Your task to perform on an android device: open app "Upside-Cash back on gas & food" (install if not already installed) Image 0: 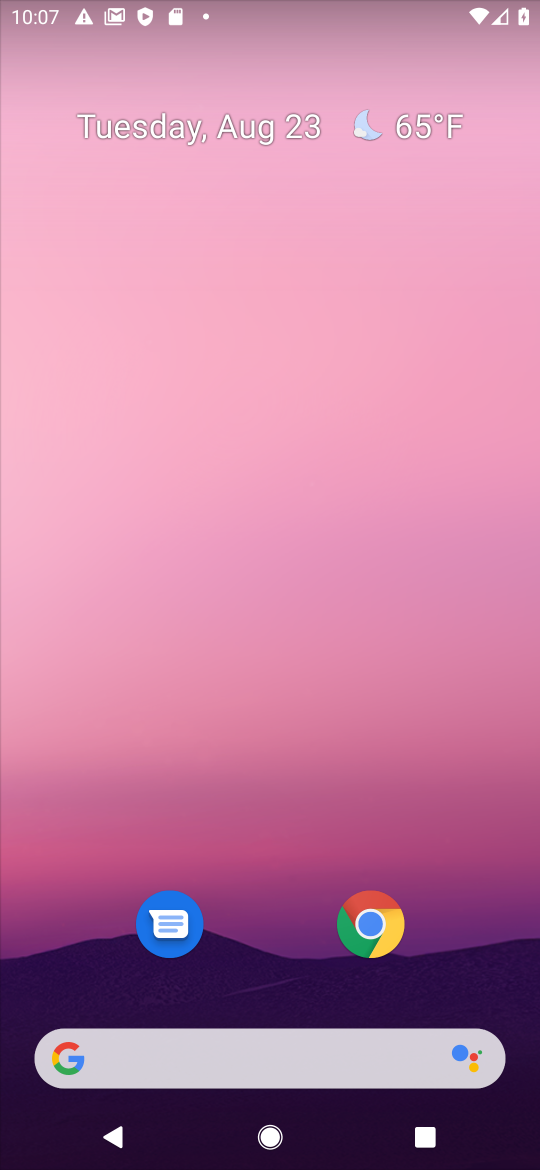
Step 0: drag from (250, 1038) to (210, 115)
Your task to perform on an android device: open app "Upside-Cash back on gas & food" (install if not already installed) Image 1: 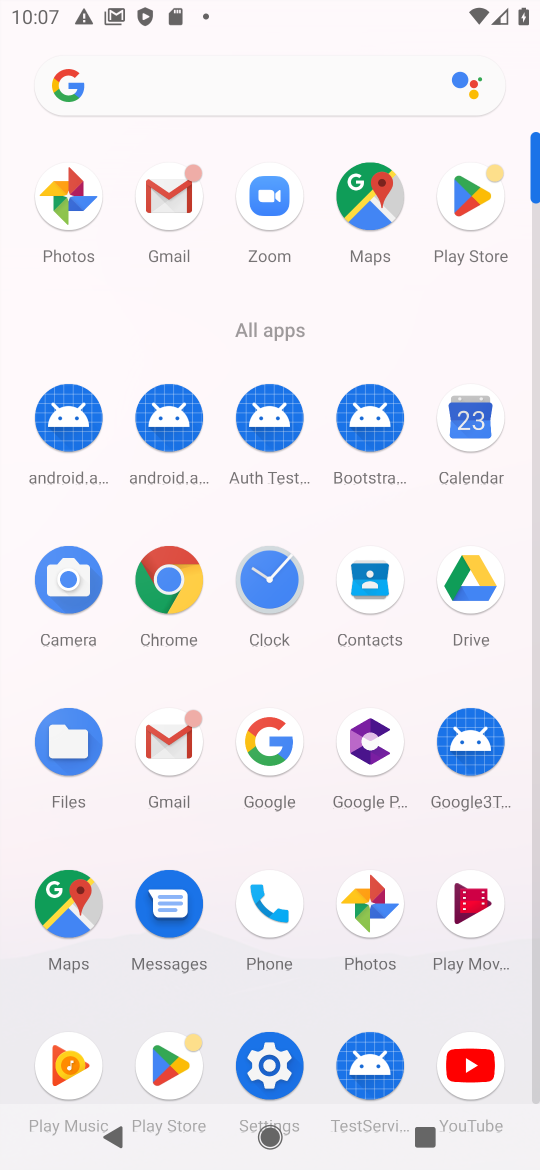
Step 1: click (484, 206)
Your task to perform on an android device: open app "Upside-Cash back on gas & food" (install if not already installed) Image 2: 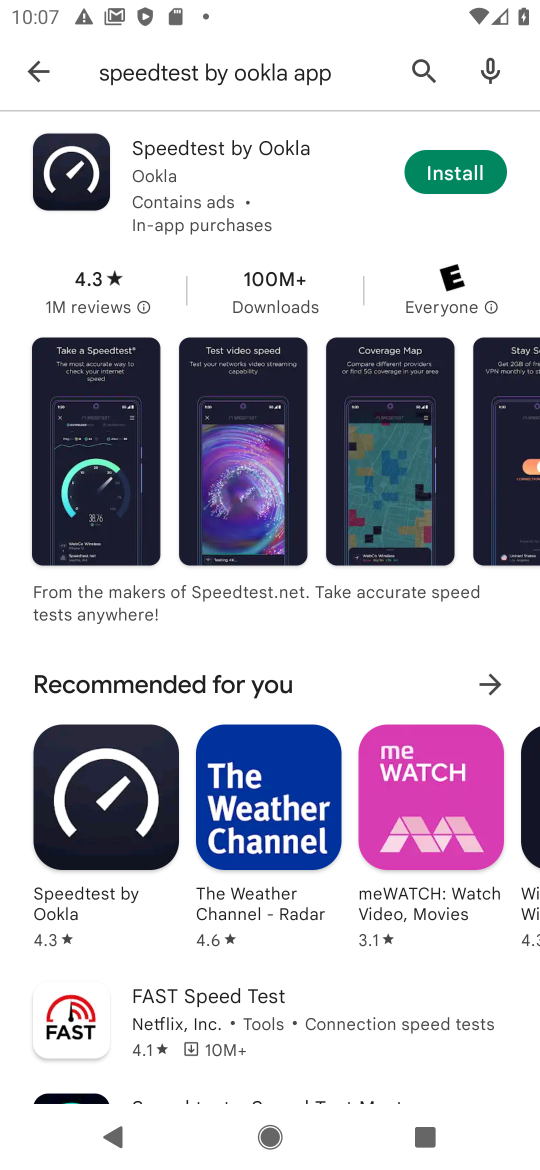
Step 2: click (417, 76)
Your task to perform on an android device: open app "Upside-Cash back on gas & food" (install if not already installed) Image 3: 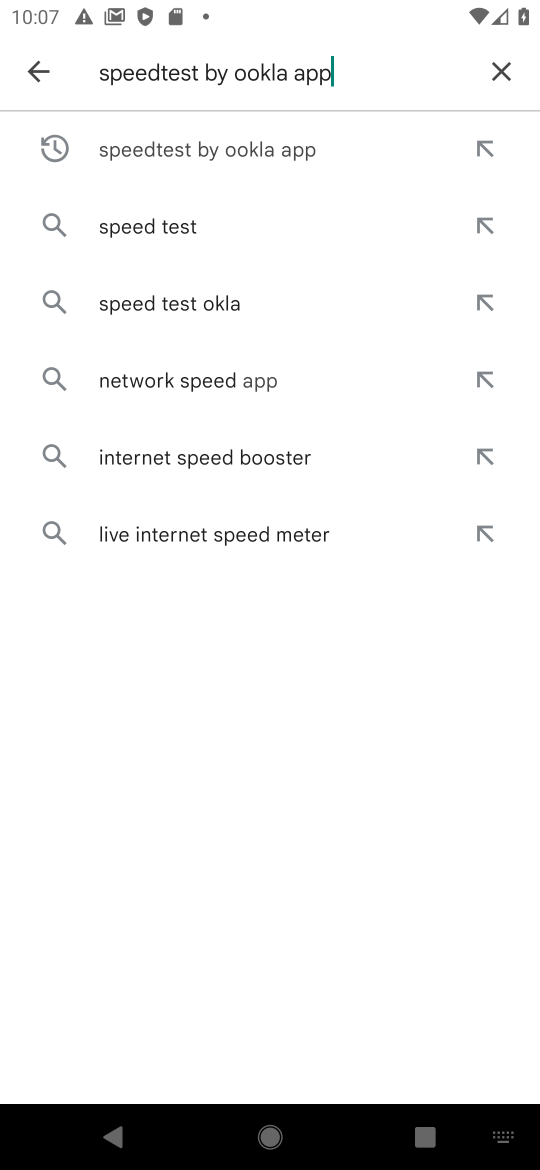
Step 3: click (499, 65)
Your task to perform on an android device: open app "Upside-Cash back on gas & food" (install if not already installed) Image 4: 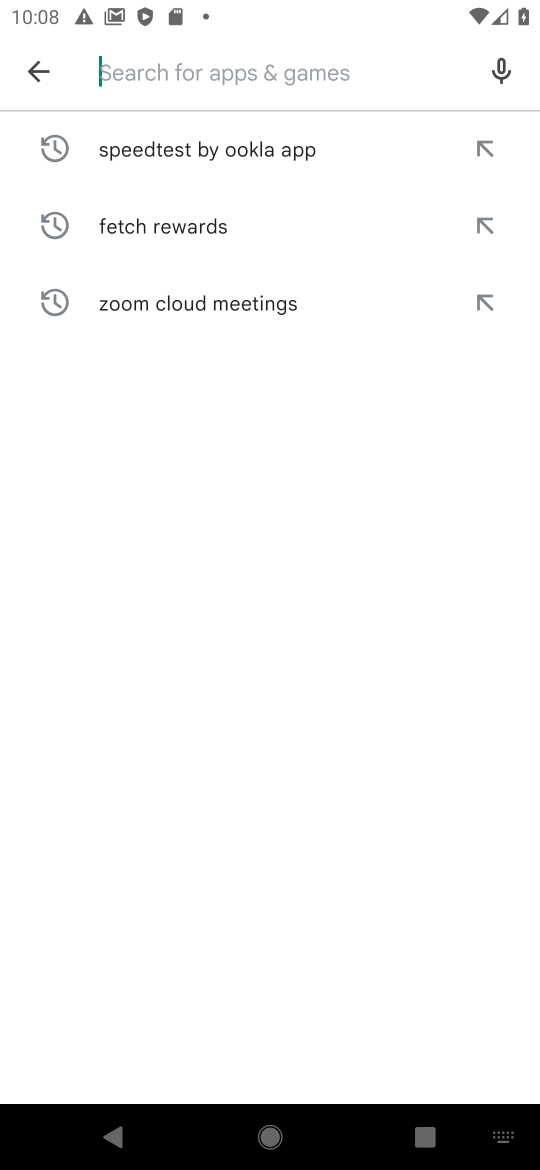
Step 4: type "Upside-Cash back on gas & food"
Your task to perform on an android device: open app "Upside-Cash back on gas & food" (install if not already installed) Image 5: 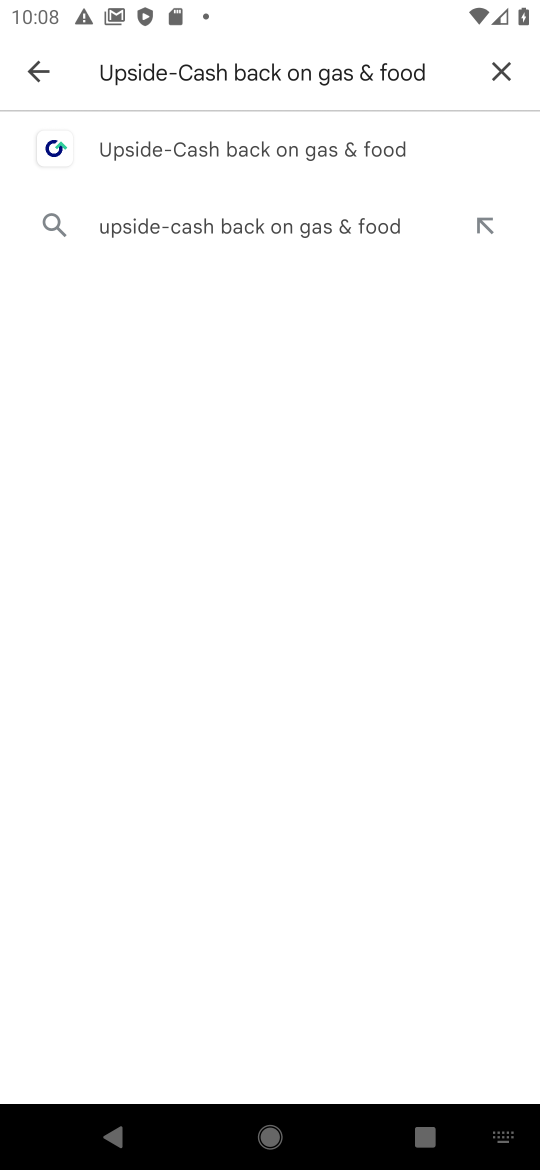
Step 5: click (267, 155)
Your task to perform on an android device: open app "Upside-Cash back on gas & food" (install if not already installed) Image 6: 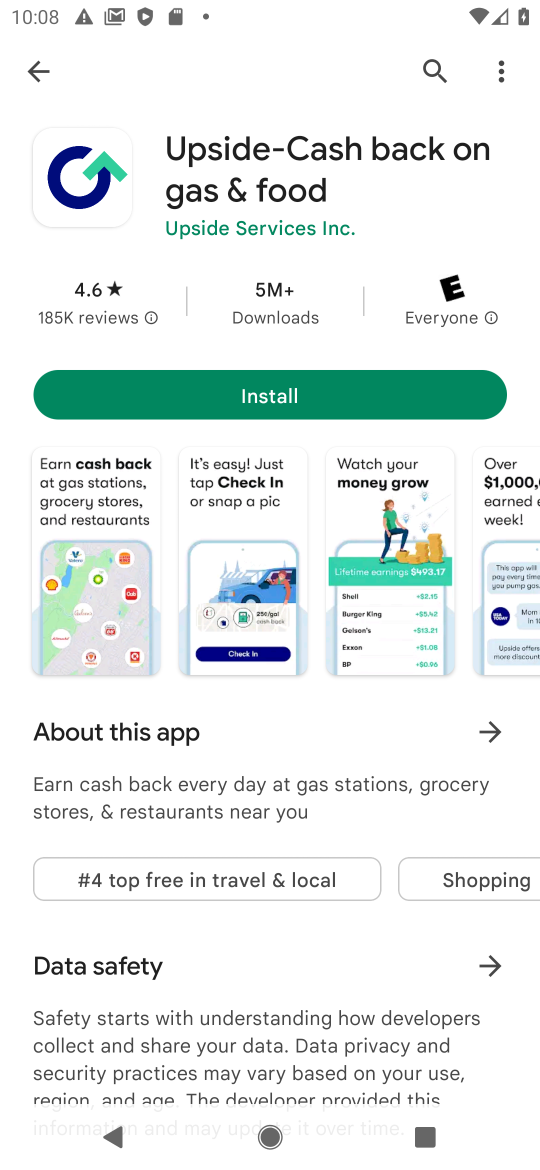
Step 6: click (276, 393)
Your task to perform on an android device: open app "Upside-Cash back on gas & food" (install if not already installed) Image 7: 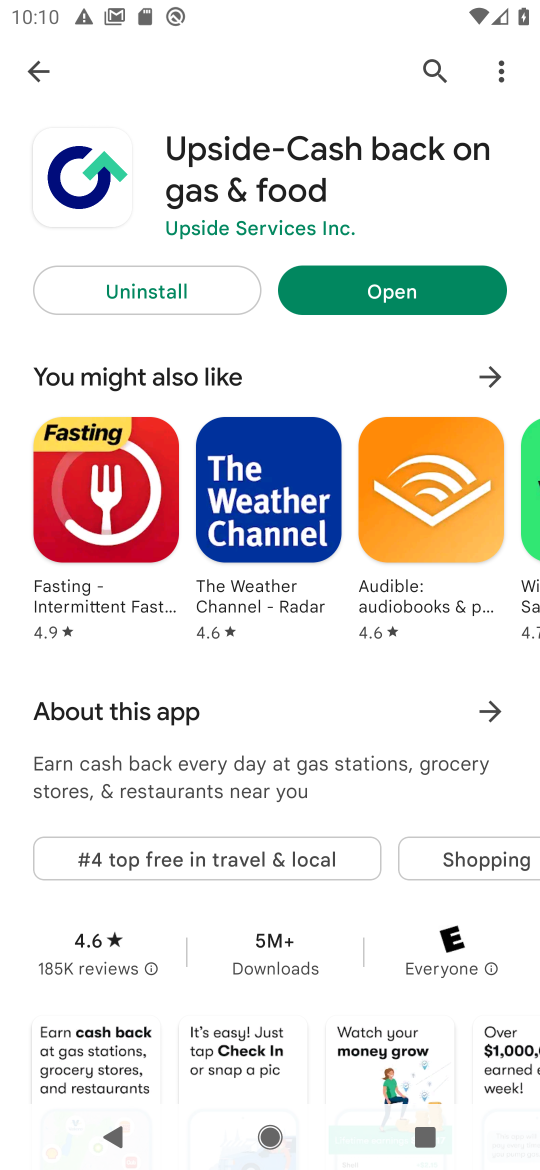
Step 7: click (362, 301)
Your task to perform on an android device: open app "Upside-Cash back on gas & food" (install if not already installed) Image 8: 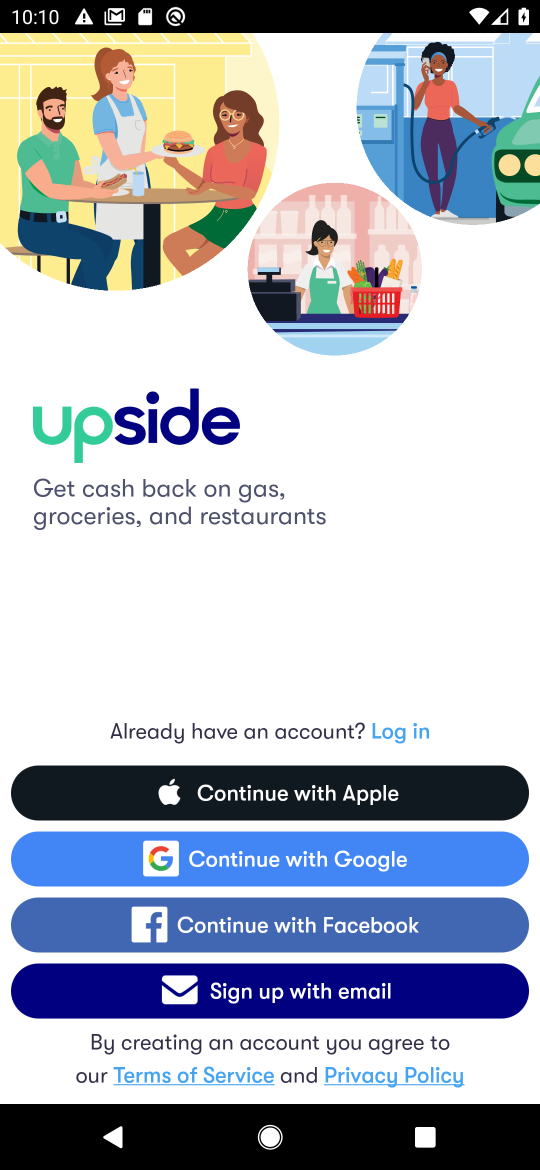
Step 8: task complete